Your task to perform on an android device: turn on data saver in the chrome app Image 0: 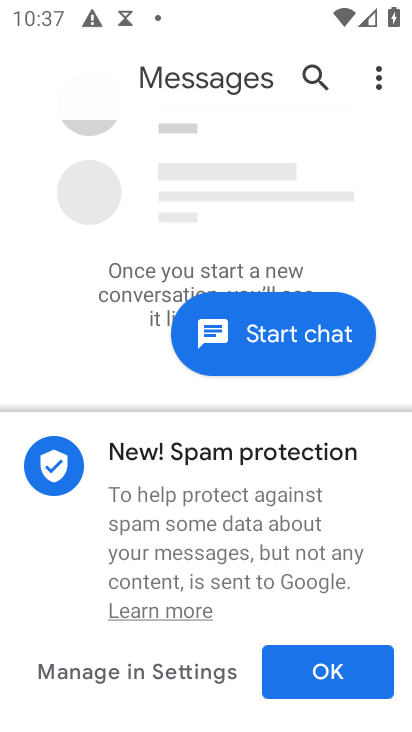
Step 0: press home button
Your task to perform on an android device: turn on data saver in the chrome app Image 1: 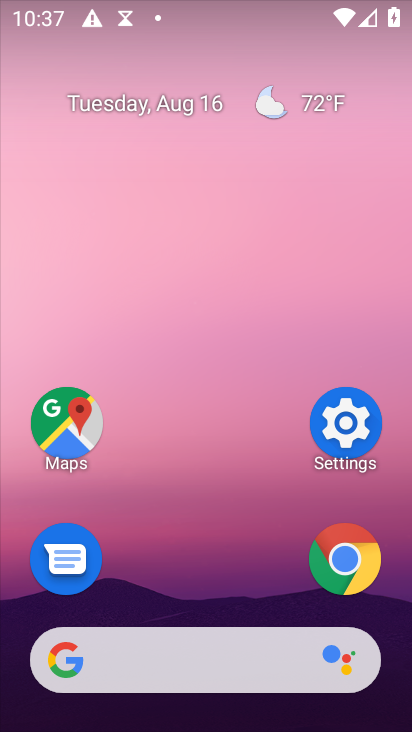
Step 1: click (347, 557)
Your task to perform on an android device: turn on data saver in the chrome app Image 2: 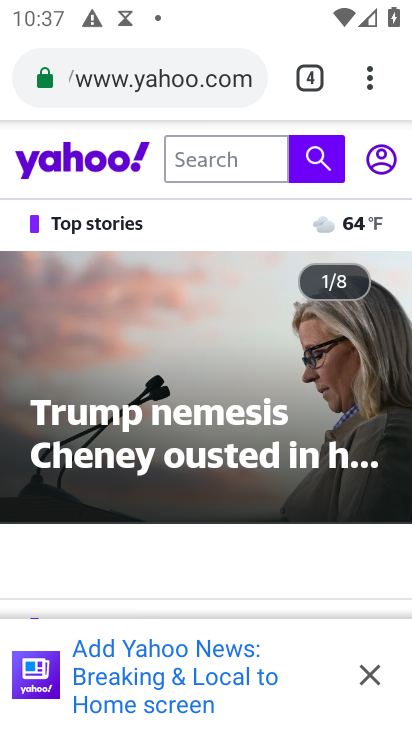
Step 2: drag from (372, 72) to (266, 593)
Your task to perform on an android device: turn on data saver in the chrome app Image 3: 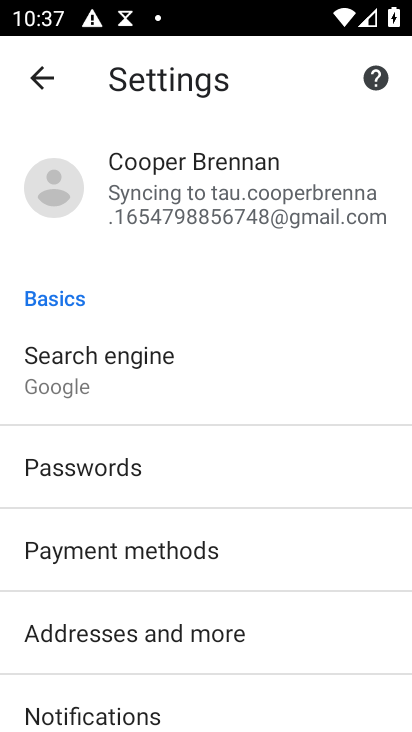
Step 3: drag from (239, 659) to (381, 145)
Your task to perform on an android device: turn on data saver in the chrome app Image 4: 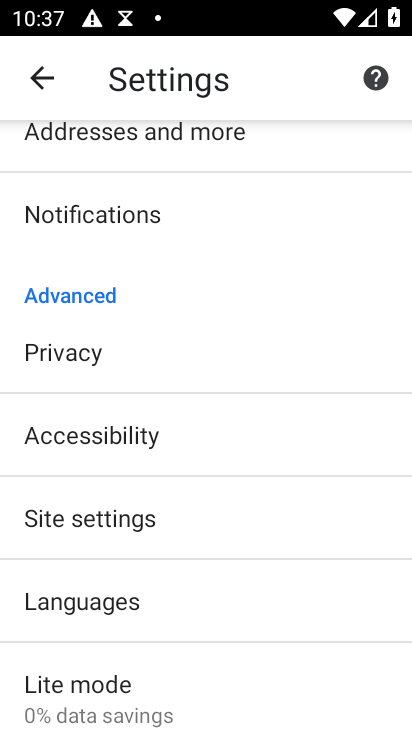
Step 4: click (106, 672)
Your task to perform on an android device: turn on data saver in the chrome app Image 5: 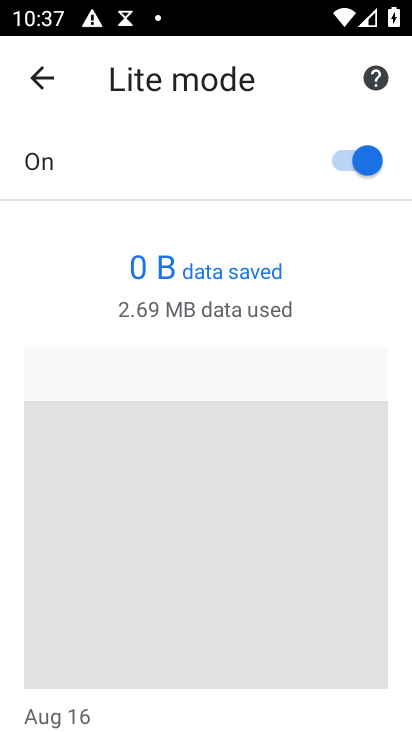
Step 5: task complete